Your task to perform on an android device: toggle show notifications on the lock screen Image 0: 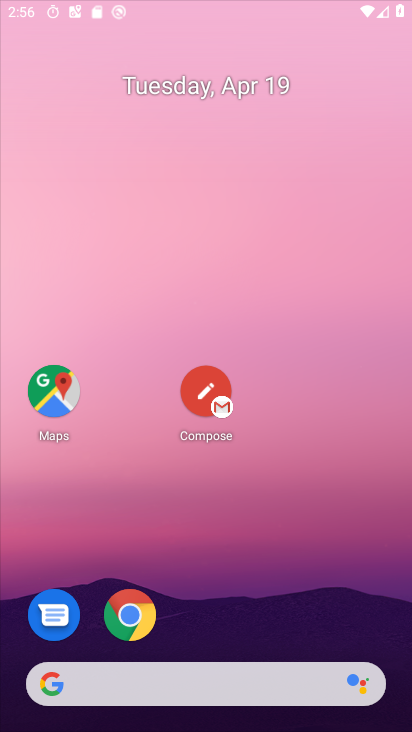
Step 0: click (306, 39)
Your task to perform on an android device: toggle show notifications on the lock screen Image 1: 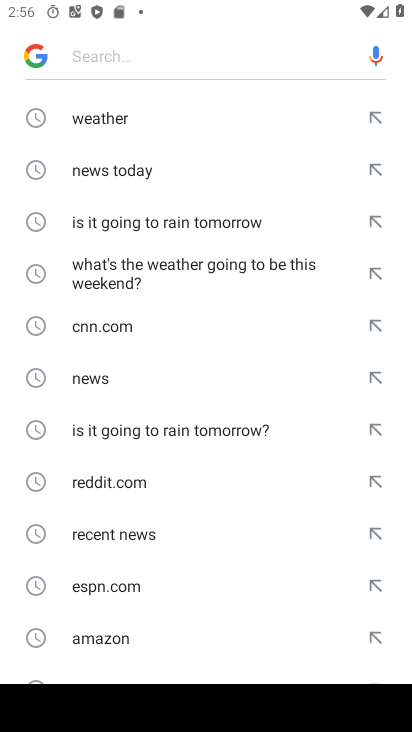
Step 1: press home button
Your task to perform on an android device: toggle show notifications on the lock screen Image 2: 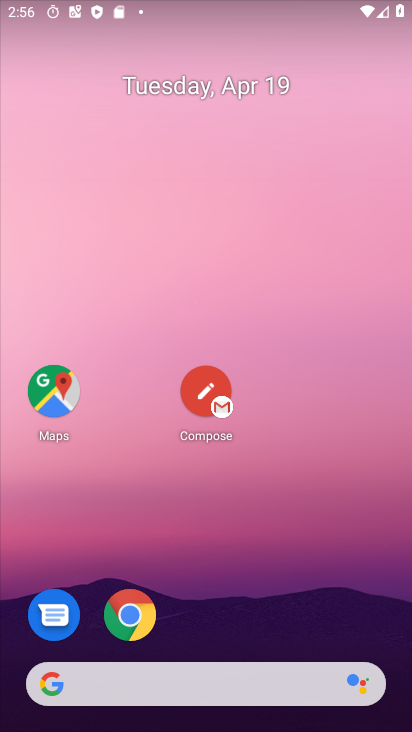
Step 2: drag from (230, 485) to (217, 74)
Your task to perform on an android device: toggle show notifications on the lock screen Image 3: 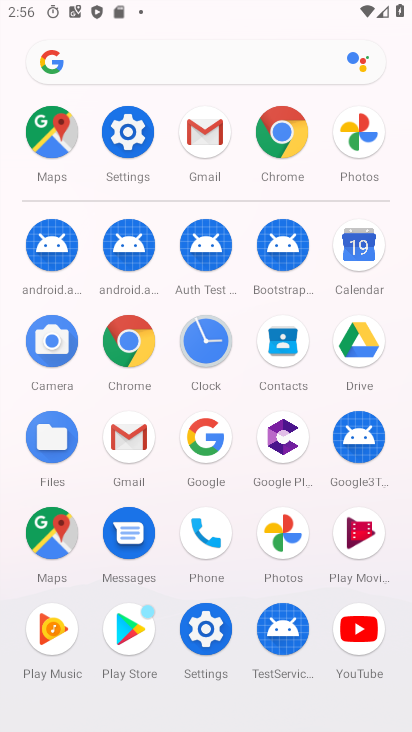
Step 3: click (199, 632)
Your task to perform on an android device: toggle show notifications on the lock screen Image 4: 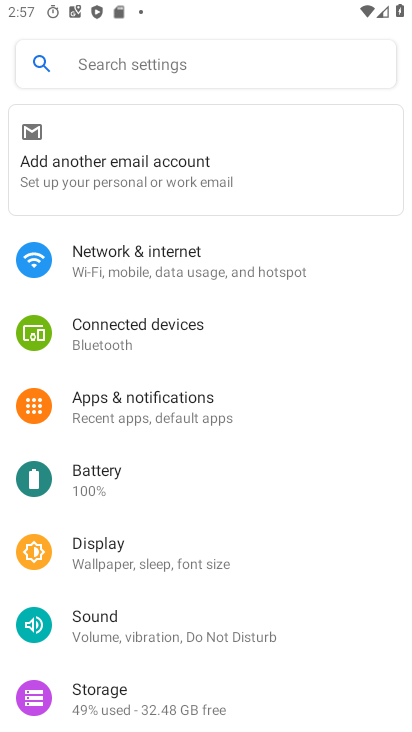
Step 4: drag from (283, 656) to (291, 390)
Your task to perform on an android device: toggle show notifications on the lock screen Image 5: 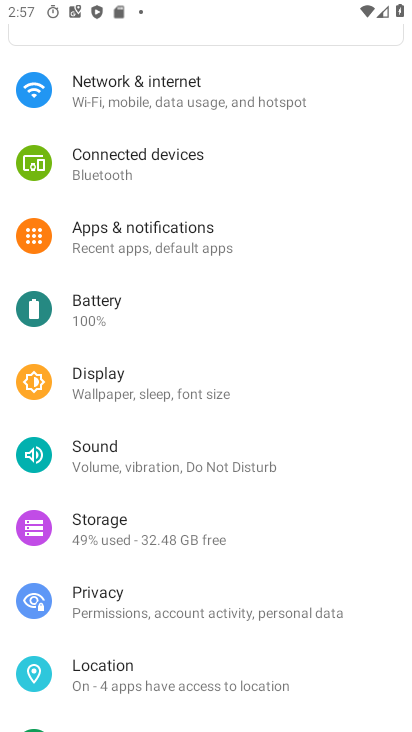
Step 5: click (214, 237)
Your task to perform on an android device: toggle show notifications on the lock screen Image 6: 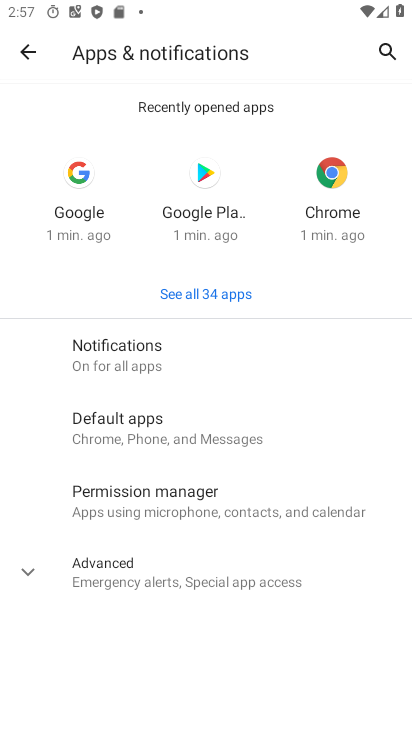
Step 6: click (122, 363)
Your task to perform on an android device: toggle show notifications on the lock screen Image 7: 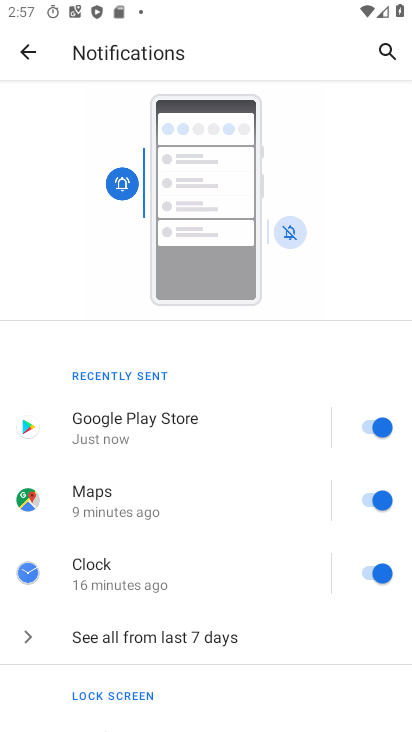
Step 7: drag from (199, 666) to (238, 238)
Your task to perform on an android device: toggle show notifications on the lock screen Image 8: 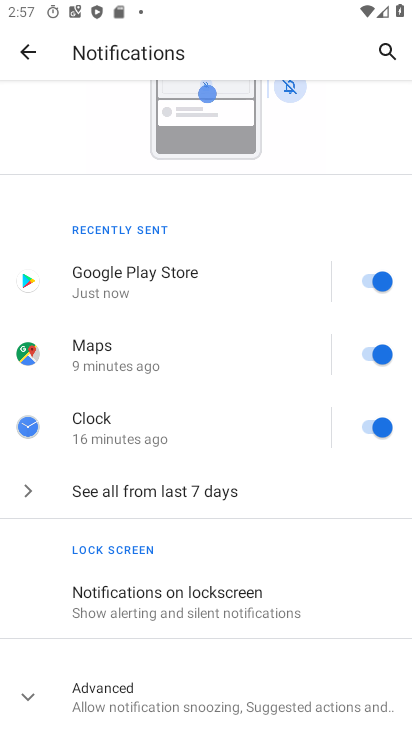
Step 8: click (199, 602)
Your task to perform on an android device: toggle show notifications on the lock screen Image 9: 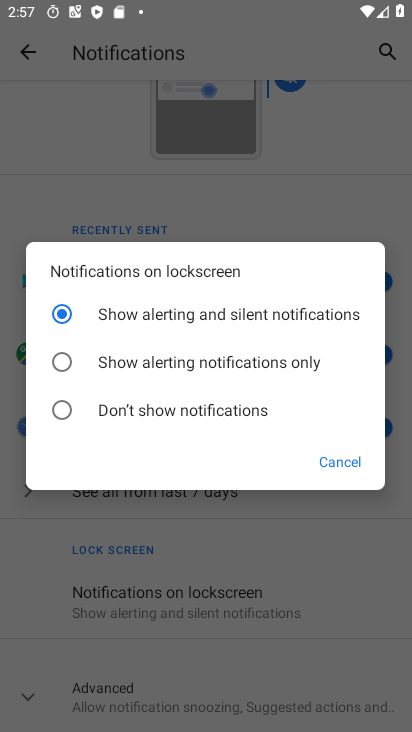
Step 9: click (59, 406)
Your task to perform on an android device: toggle show notifications on the lock screen Image 10: 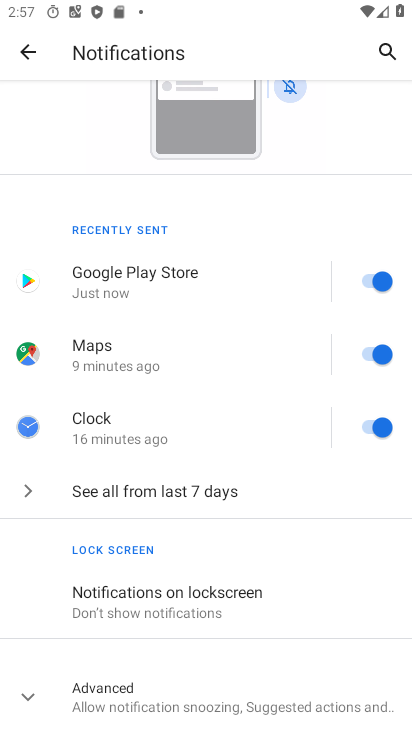
Step 10: task complete